Your task to perform on an android device: open app "Expedia: Hotels, Flights & Car" (install if not already installed) and enter user name: "crusader@outlook.com" and password: "Toryize" Image 0: 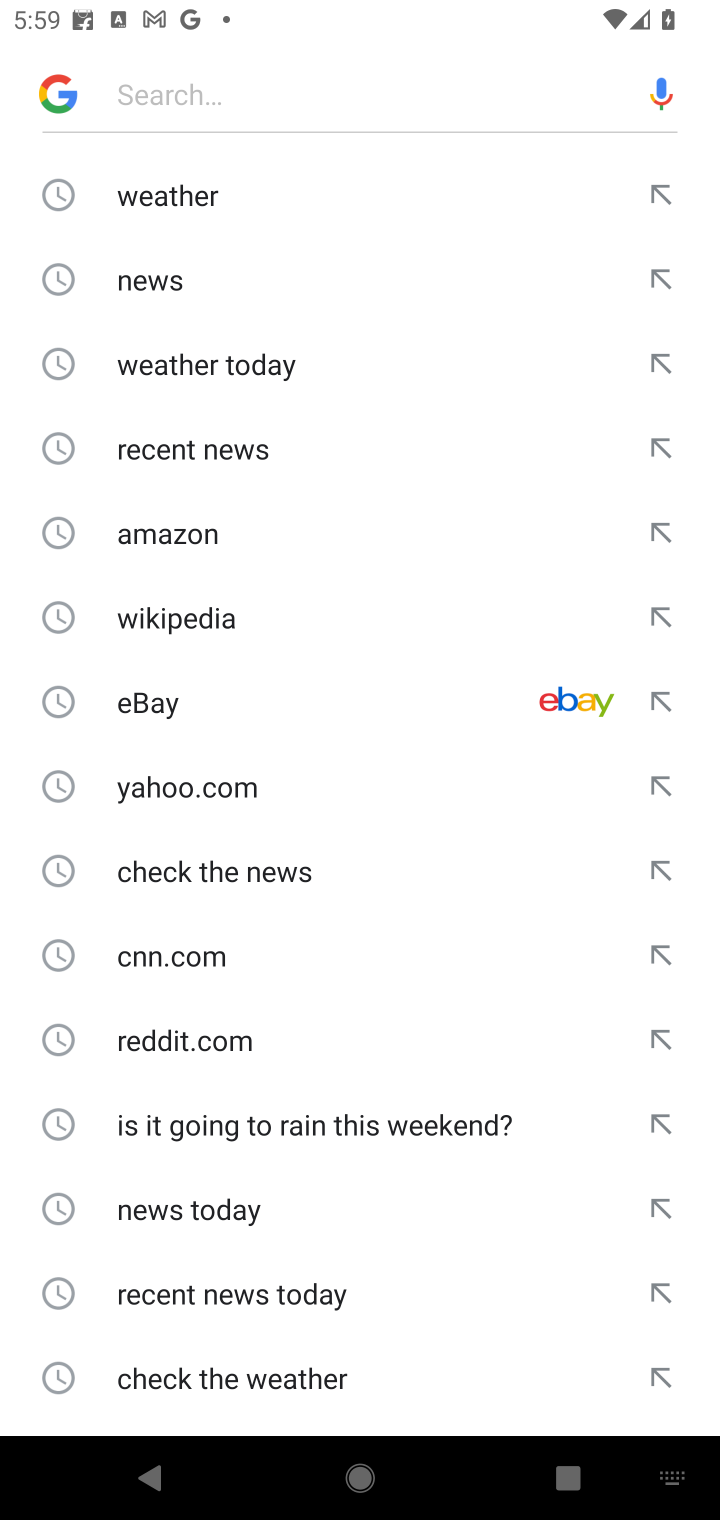
Step 0: press back button
Your task to perform on an android device: open app "Expedia: Hotels, Flights & Car" (install if not already installed) and enter user name: "crusader@outlook.com" and password: "Toryize" Image 1: 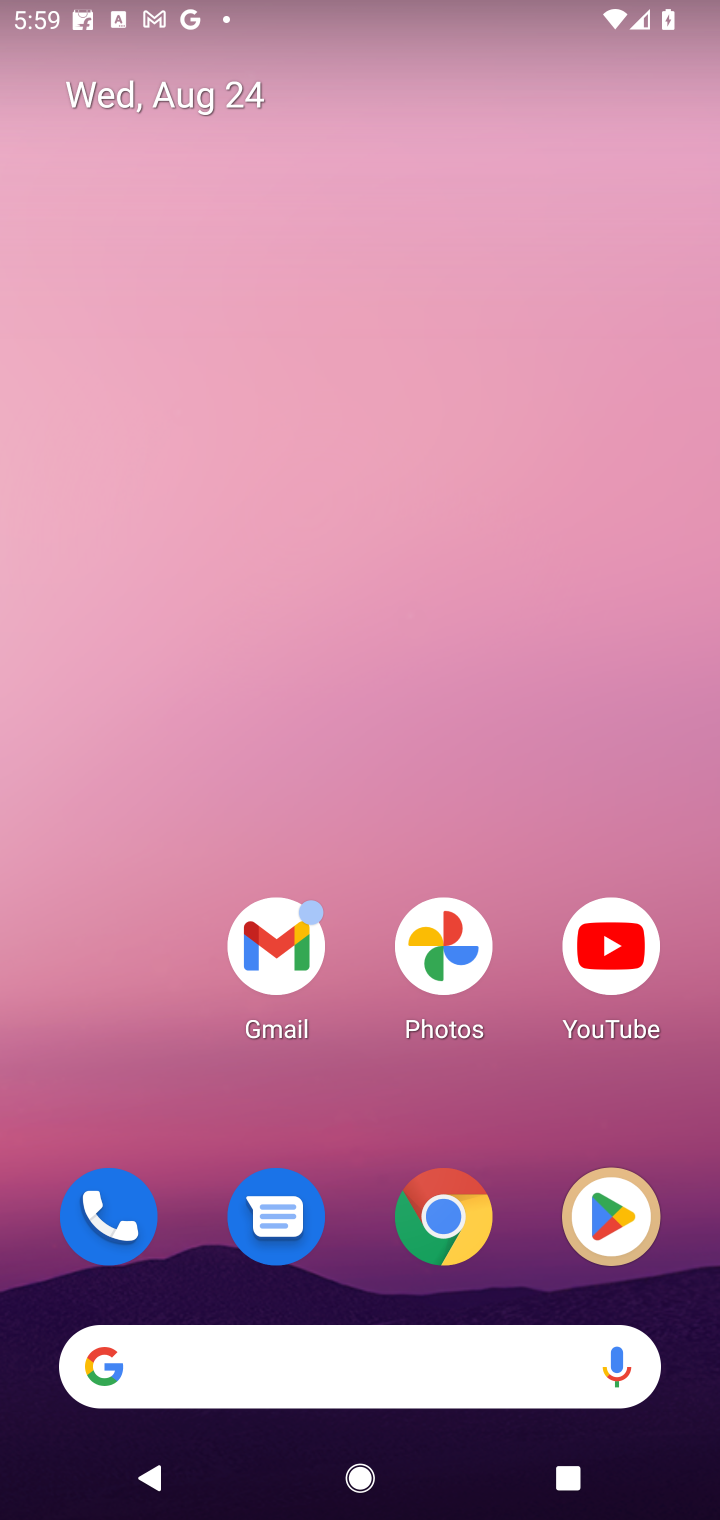
Step 1: click (578, 1242)
Your task to perform on an android device: open app "Expedia: Hotels, Flights & Car" (install if not already installed) and enter user name: "crusader@outlook.com" and password: "Toryize" Image 2: 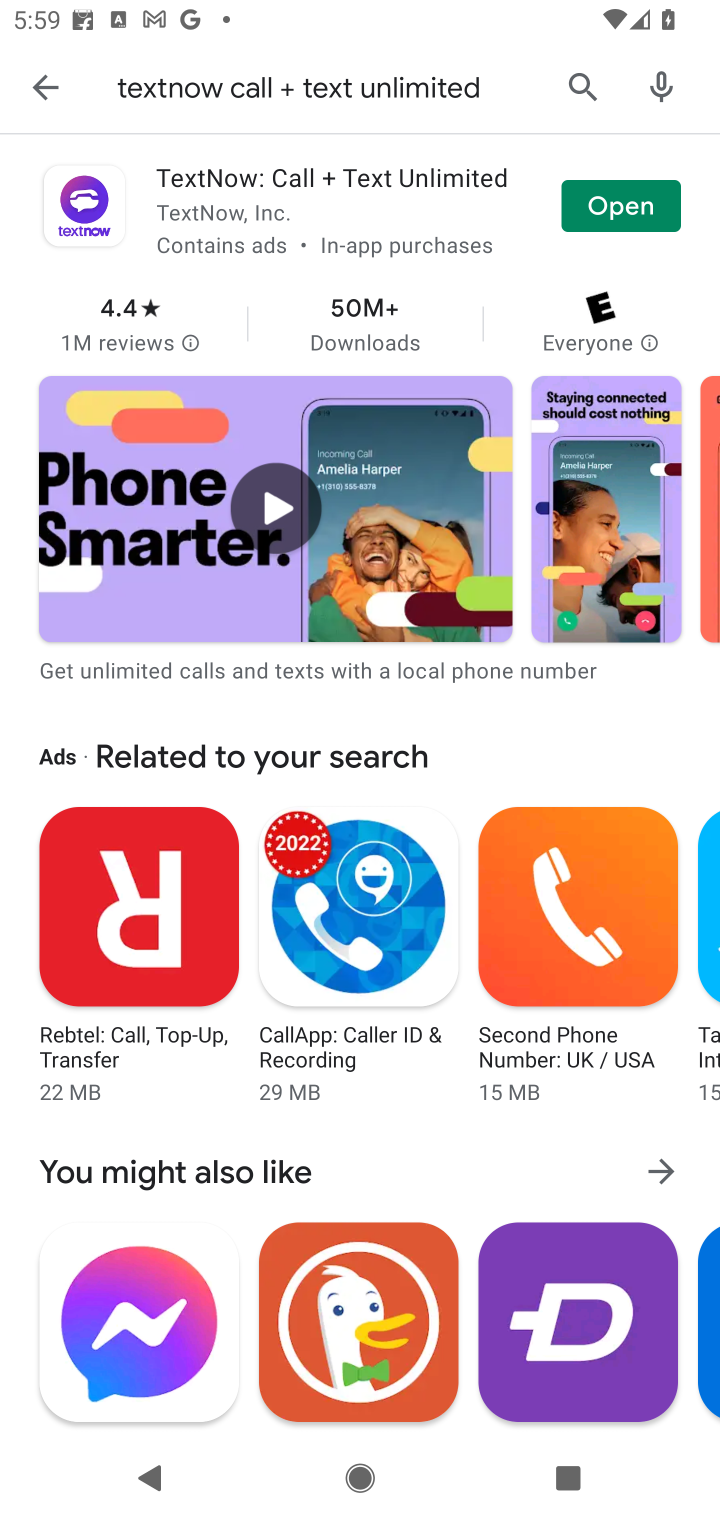
Step 2: click (590, 80)
Your task to perform on an android device: open app "Expedia: Hotels, Flights & Car" (install if not already installed) and enter user name: "crusader@outlook.com" and password: "Toryize" Image 3: 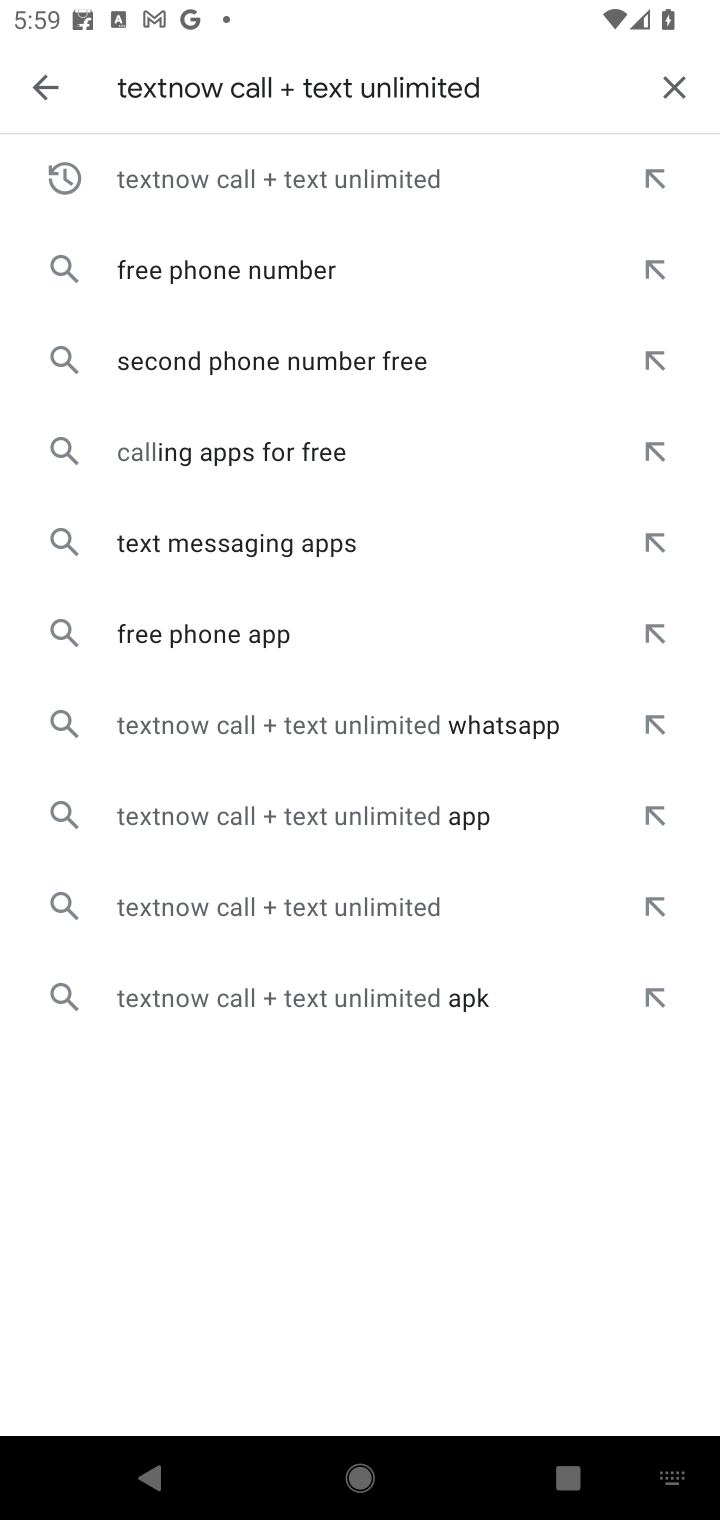
Step 3: click (669, 96)
Your task to perform on an android device: open app "Expedia: Hotels, Flights & Car" (install if not already installed) and enter user name: "crusader@outlook.com" and password: "Toryize" Image 4: 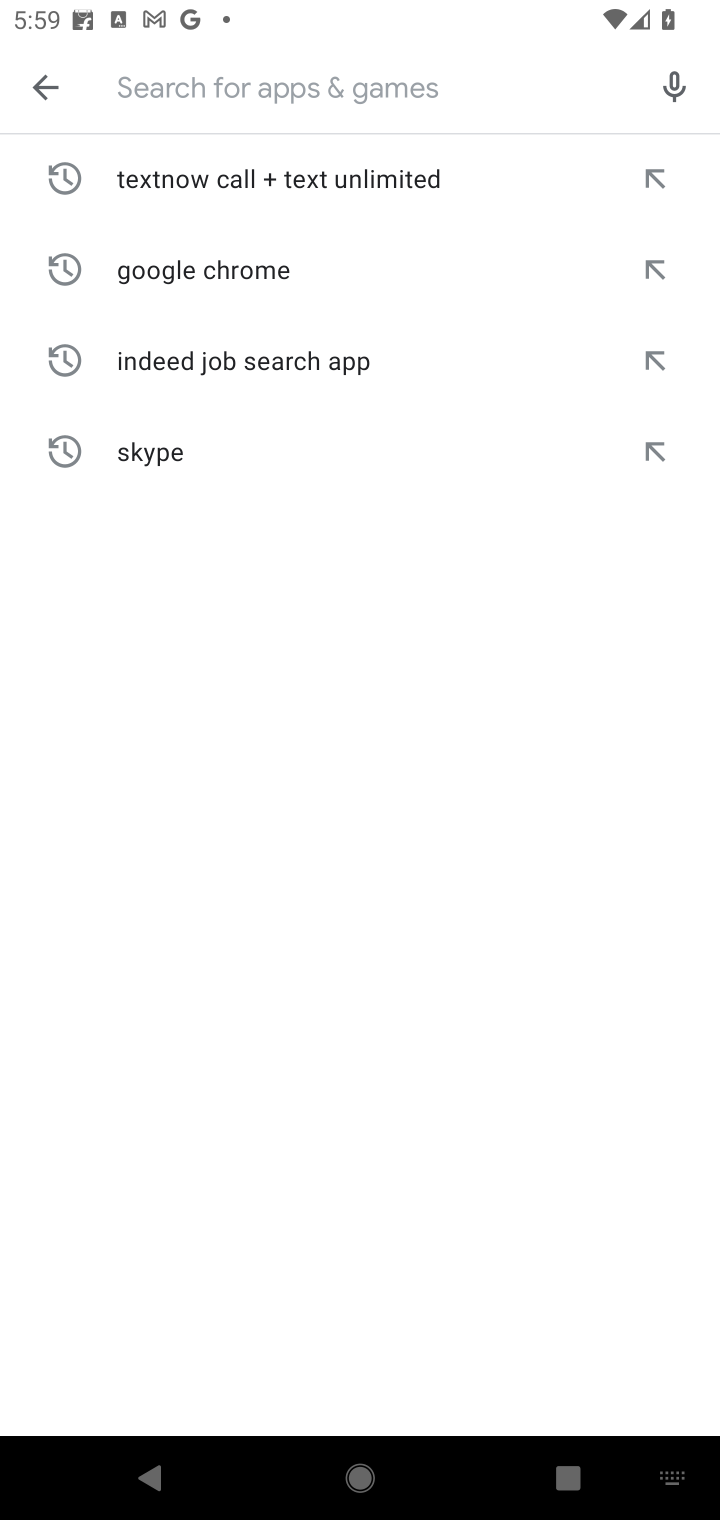
Step 4: type "Expedia: Hotels, Flights & Car"
Your task to perform on an android device: open app "Expedia: Hotels, Flights & Car" (install if not already installed) and enter user name: "crusader@outlook.com" and password: "Toryize" Image 5: 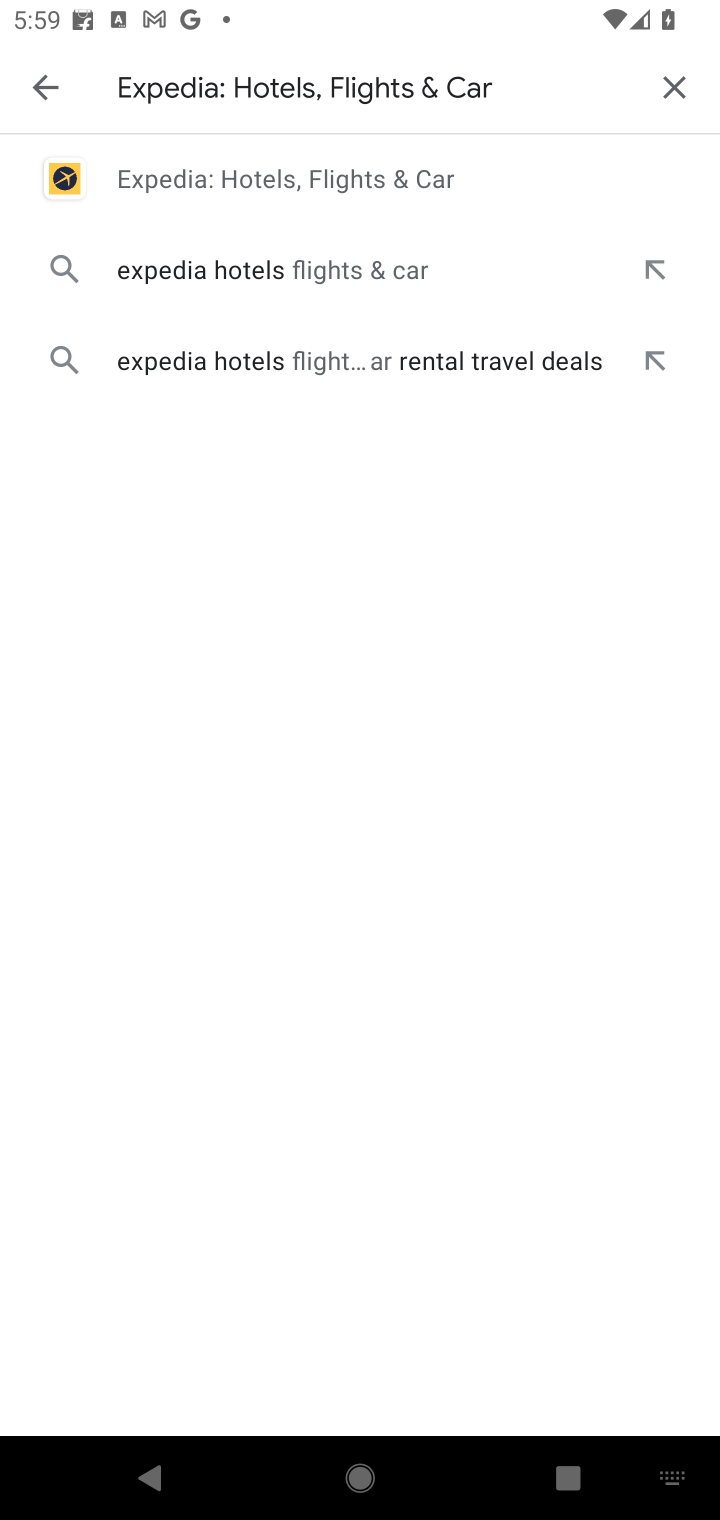
Step 5: click (246, 181)
Your task to perform on an android device: open app "Expedia: Hotels, Flights & Car" (install if not already installed) and enter user name: "crusader@outlook.com" and password: "Toryize" Image 6: 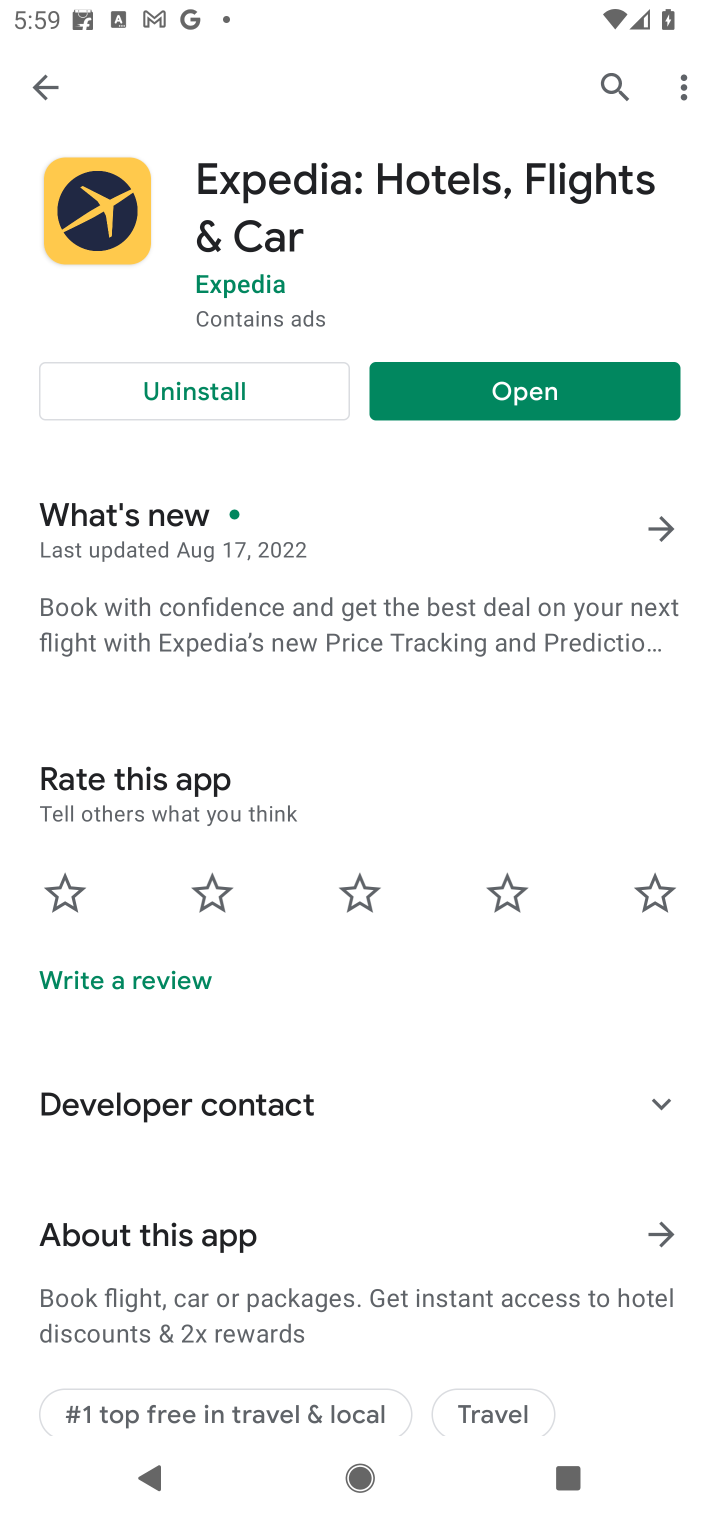
Step 6: click (479, 384)
Your task to perform on an android device: open app "Expedia: Hotels, Flights & Car" (install if not already installed) and enter user name: "crusader@outlook.com" and password: "Toryize" Image 7: 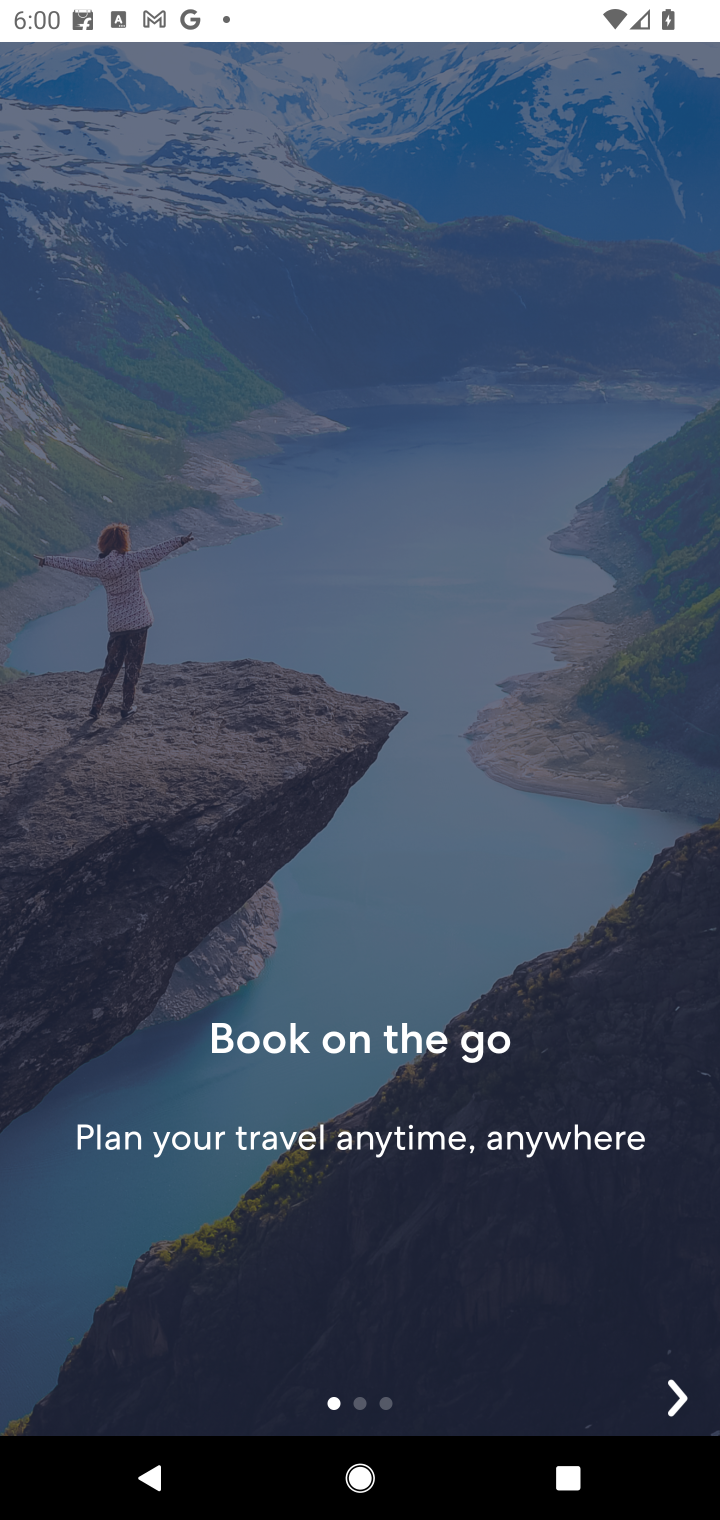
Step 7: task complete